Your task to perform on an android device: Go to Wikipedia Image 0: 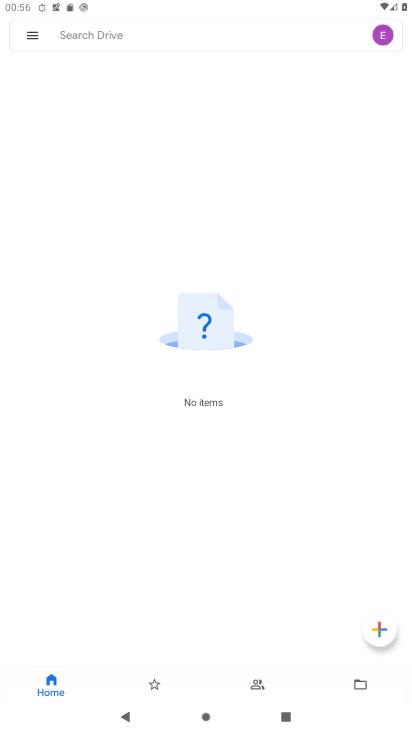
Step 0: press home button
Your task to perform on an android device: Go to Wikipedia Image 1: 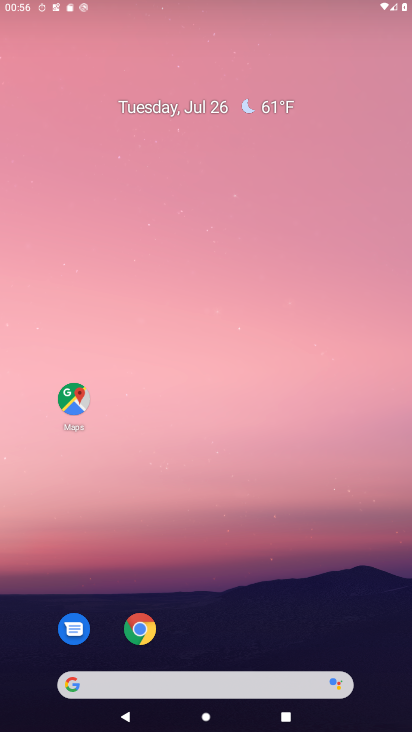
Step 1: click (156, 627)
Your task to perform on an android device: Go to Wikipedia Image 2: 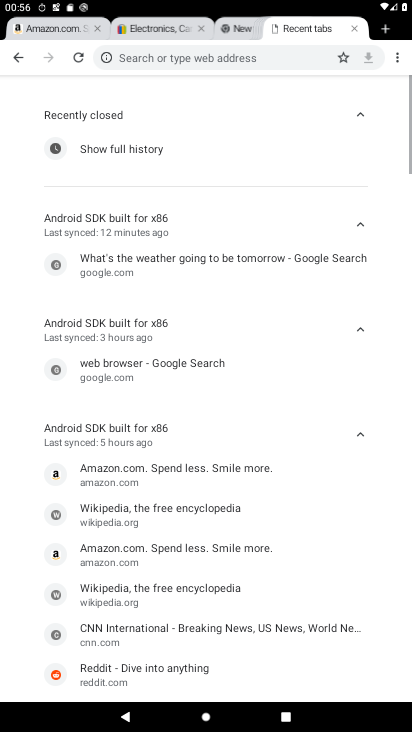
Step 2: click (381, 23)
Your task to perform on an android device: Go to Wikipedia Image 3: 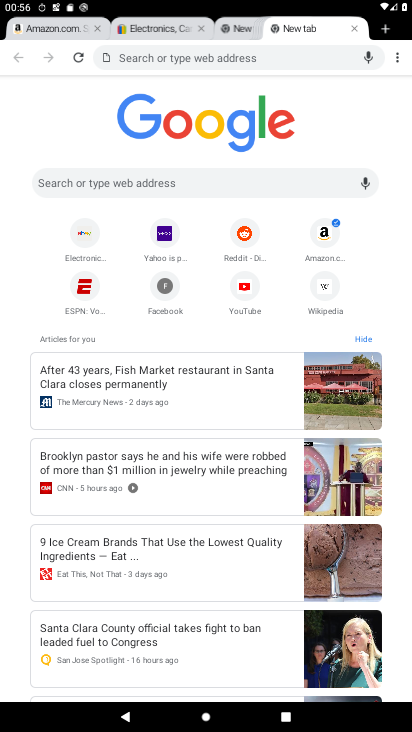
Step 3: click (312, 288)
Your task to perform on an android device: Go to Wikipedia Image 4: 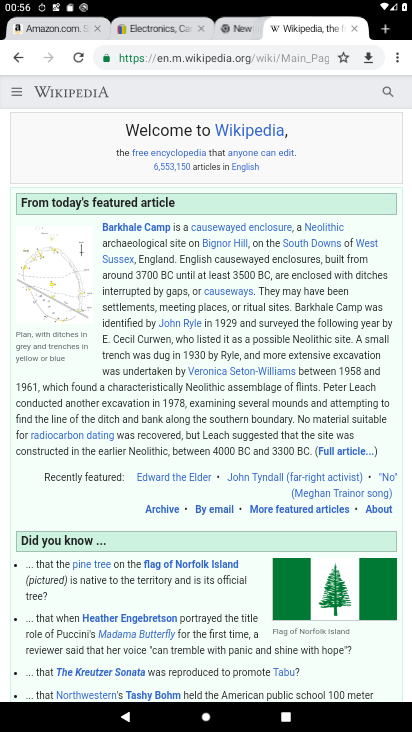
Step 4: task complete